Your task to perform on an android device: turn on the 24-hour format for clock Image 0: 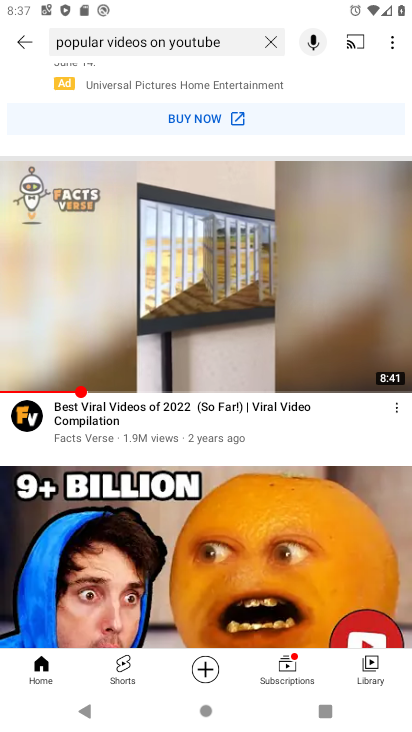
Step 0: press home button
Your task to perform on an android device: turn on the 24-hour format for clock Image 1: 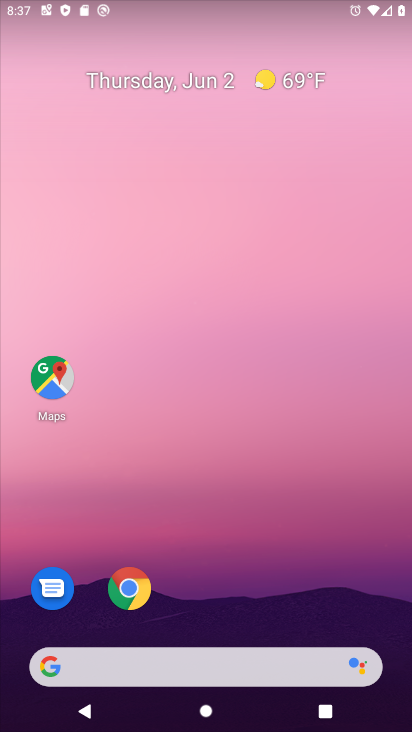
Step 1: drag from (220, 723) to (214, 113)
Your task to perform on an android device: turn on the 24-hour format for clock Image 2: 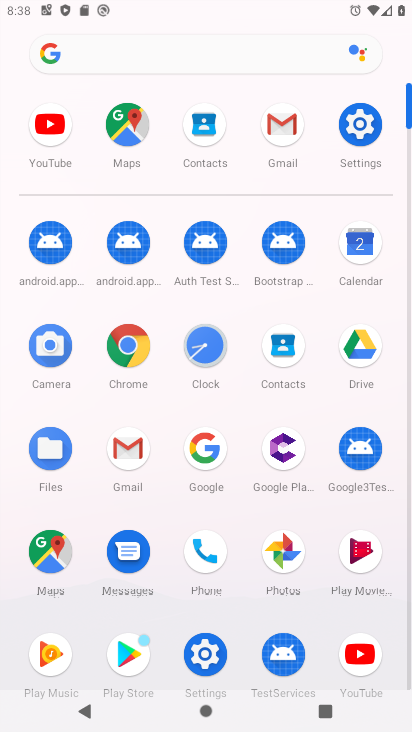
Step 2: click (206, 348)
Your task to perform on an android device: turn on the 24-hour format for clock Image 3: 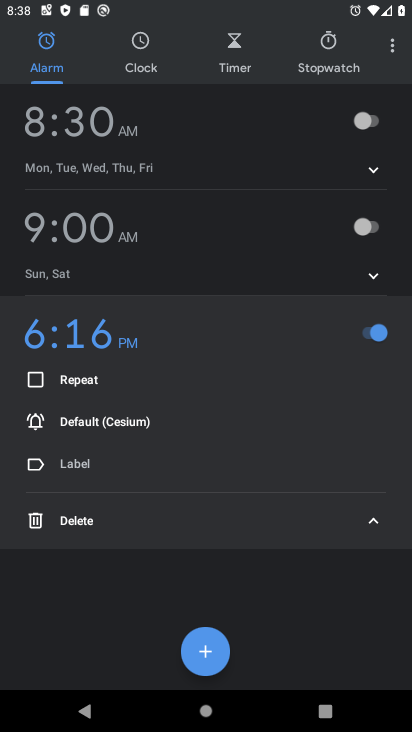
Step 3: click (393, 53)
Your task to perform on an android device: turn on the 24-hour format for clock Image 4: 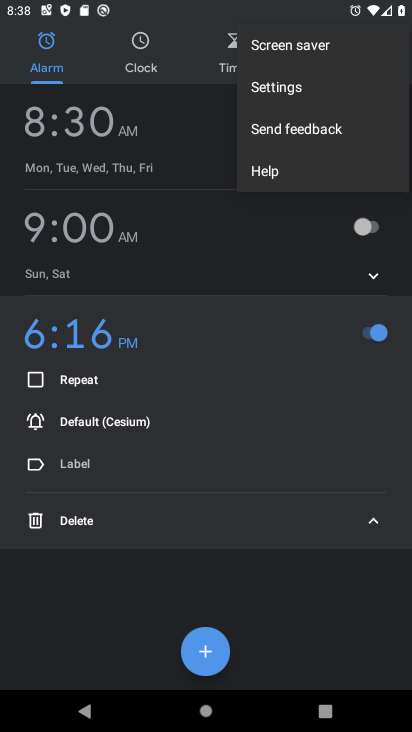
Step 4: click (290, 83)
Your task to perform on an android device: turn on the 24-hour format for clock Image 5: 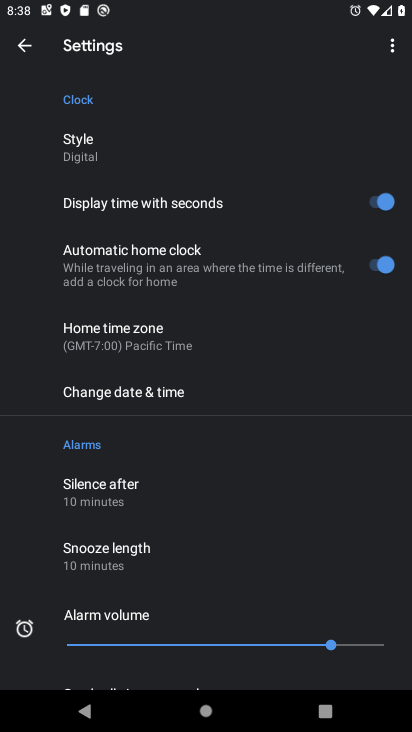
Step 5: click (140, 393)
Your task to perform on an android device: turn on the 24-hour format for clock Image 6: 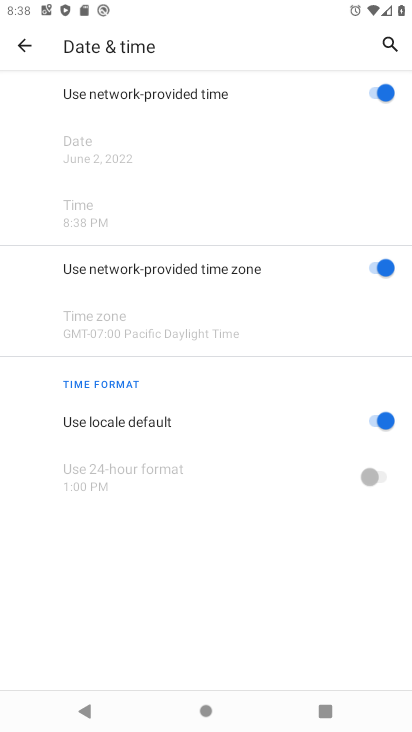
Step 6: click (373, 422)
Your task to perform on an android device: turn on the 24-hour format for clock Image 7: 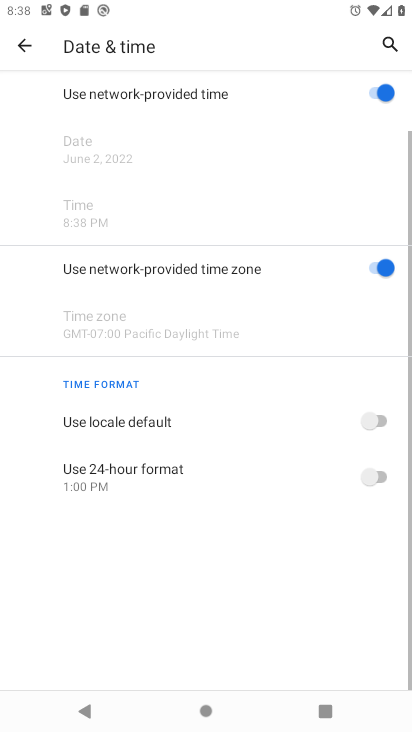
Step 7: click (386, 474)
Your task to perform on an android device: turn on the 24-hour format for clock Image 8: 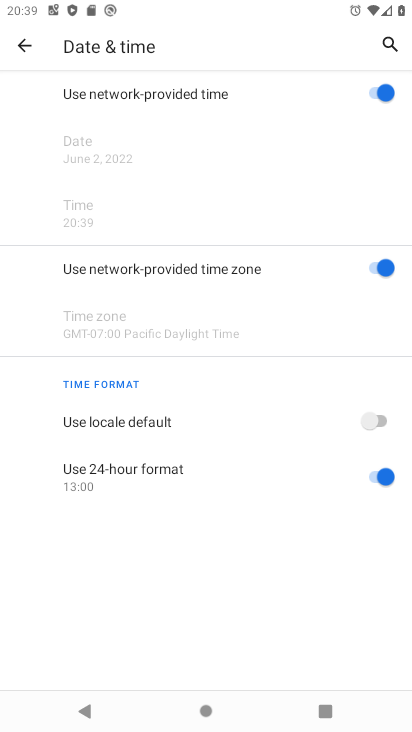
Step 8: task complete